Your task to perform on an android device: Search for sushi restaurants on Maps Image 0: 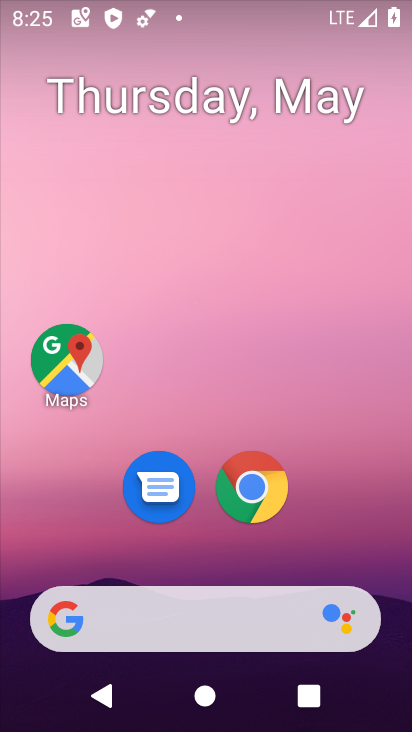
Step 0: drag from (211, 565) to (253, 320)
Your task to perform on an android device: Search for sushi restaurants on Maps Image 1: 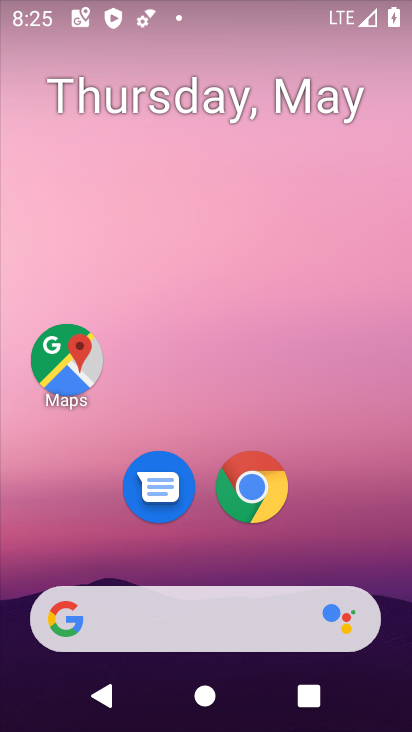
Step 1: drag from (215, 561) to (296, 189)
Your task to perform on an android device: Search for sushi restaurants on Maps Image 2: 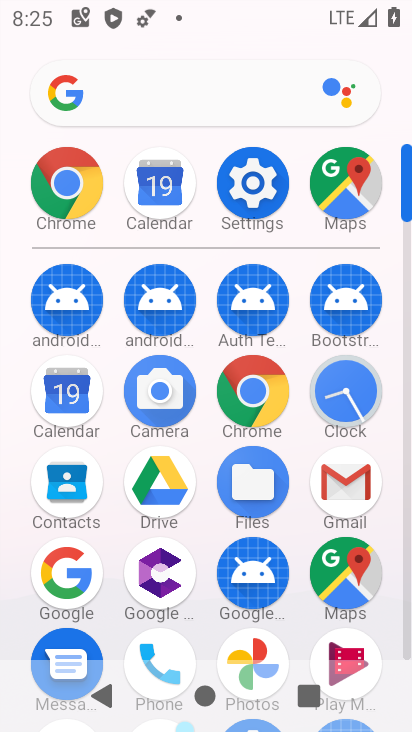
Step 2: click (341, 175)
Your task to perform on an android device: Search for sushi restaurants on Maps Image 3: 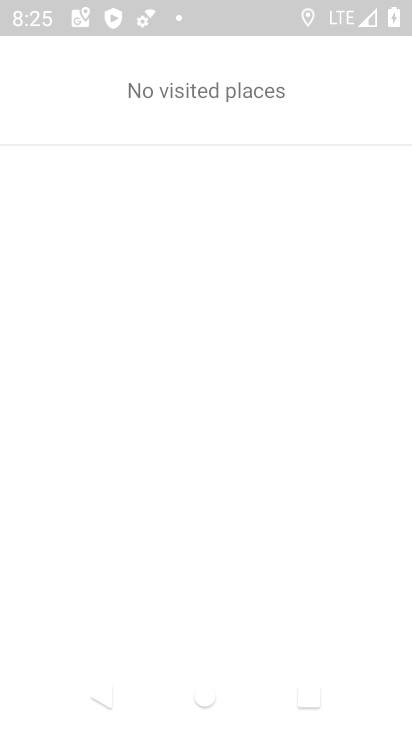
Step 3: drag from (184, 574) to (254, 192)
Your task to perform on an android device: Search for sushi restaurants on Maps Image 4: 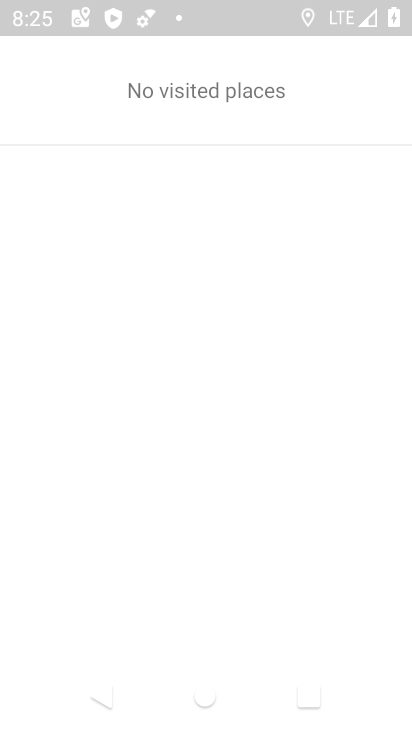
Step 4: drag from (219, 659) to (234, 197)
Your task to perform on an android device: Search for sushi restaurants on Maps Image 5: 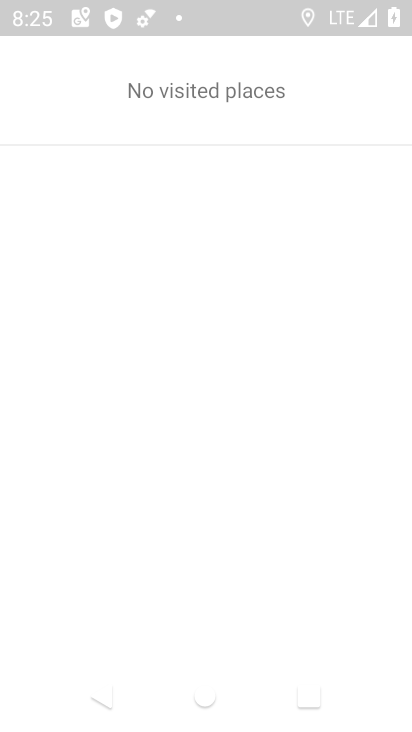
Step 5: press home button
Your task to perform on an android device: Search for sushi restaurants on Maps Image 6: 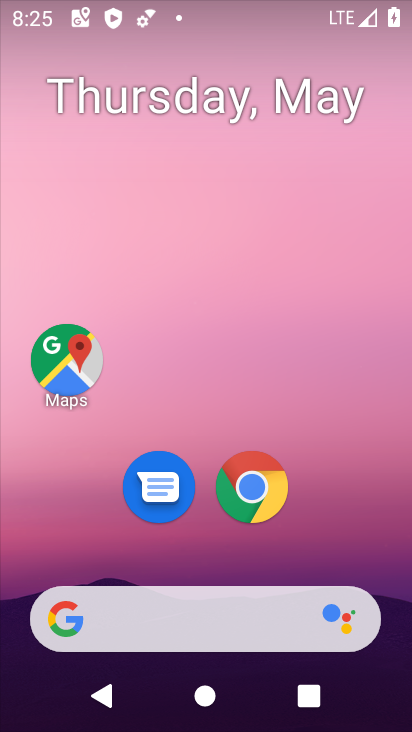
Step 6: drag from (195, 564) to (280, 31)
Your task to perform on an android device: Search for sushi restaurants on Maps Image 7: 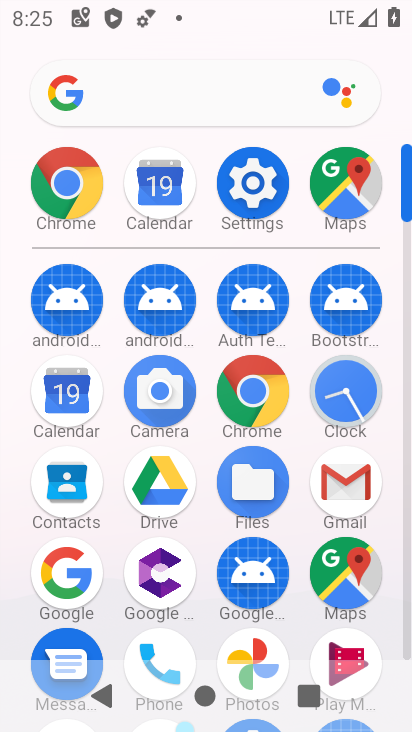
Step 7: click (329, 590)
Your task to perform on an android device: Search for sushi restaurants on Maps Image 8: 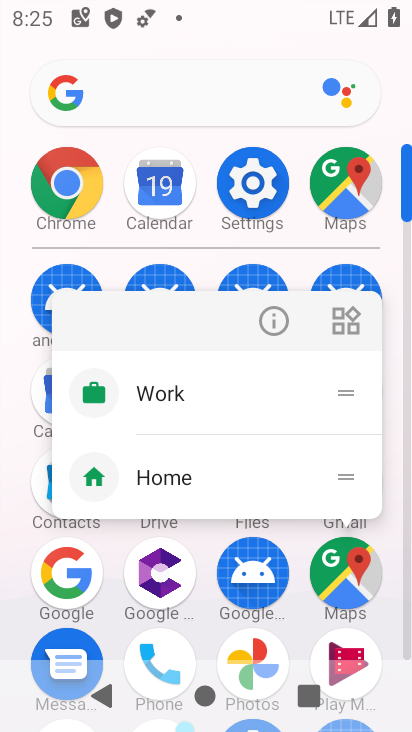
Step 8: click (276, 298)
Your task to perform on an android device: Search for sushi restaurants on Maps Image 9: 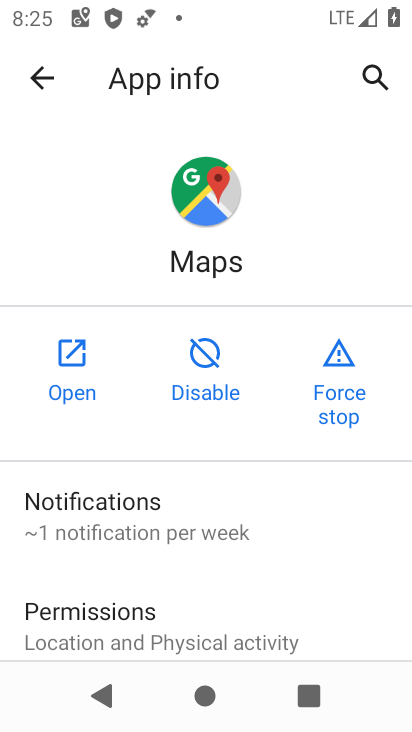
Step 9: click (80, 359)
Your task to perform on an android device: Search for sushi restaurants on Maps Image 10: 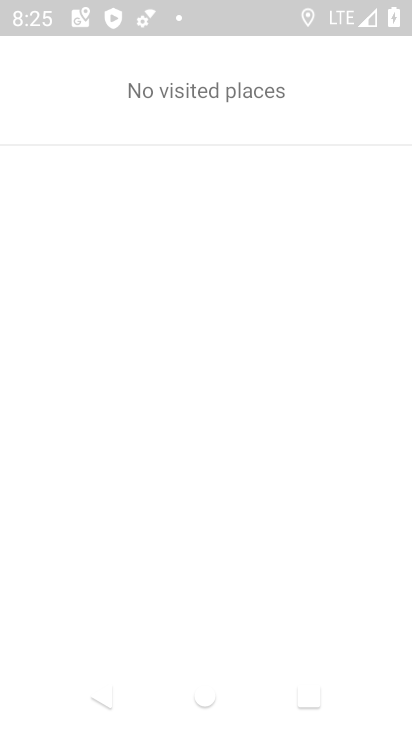
Step 10: press back button
Your task to perform on an android device: Search for sushi restaurants on Maps Image 11: 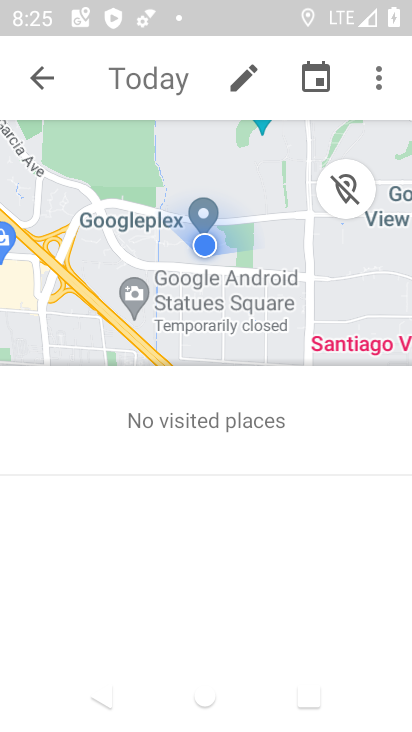
Step 11: click (16, 79)
Your task to perform on an android device: Search for sushi restaurants on Maps Image 12: 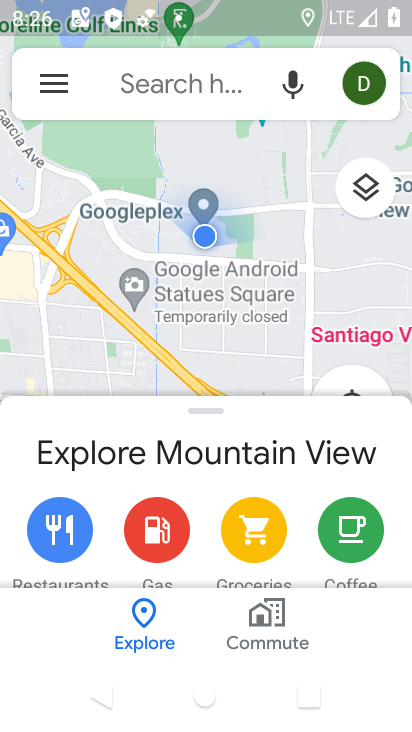
Step 12: click (140, 92)
Your task to perform on an android device: Search for sushi restaurants on Maps Image 13: 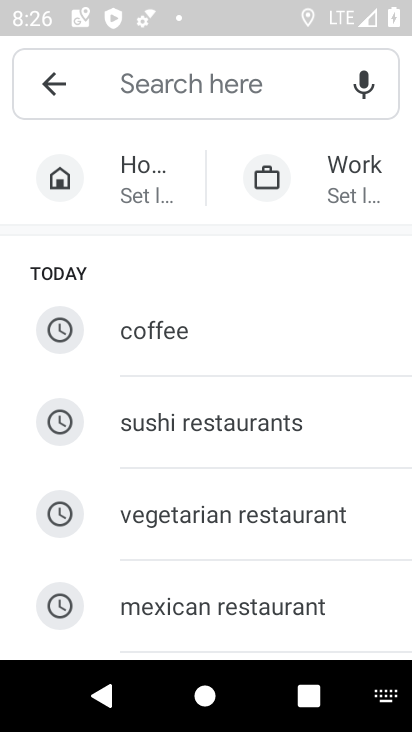
Step 13: click (221, 426)
Your task to perform on an android device: Search for sushi restaurants on Maps Image 14: 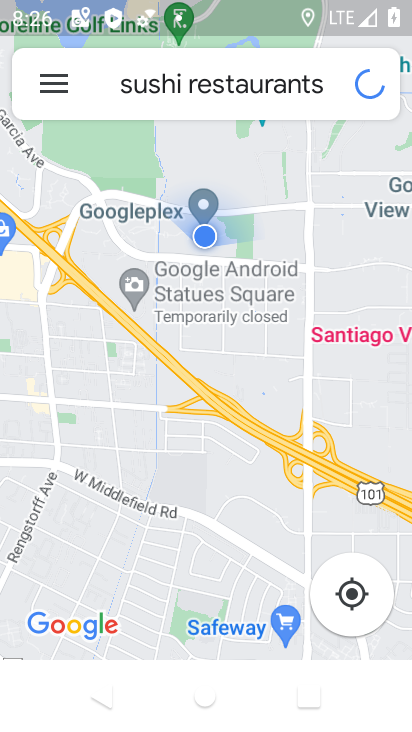
Step 14: task complete